Your task to perform on an android device: Search for "beats solo 3" on walmart, select the first entry, add it to the cart, then select checkout. Image 0: 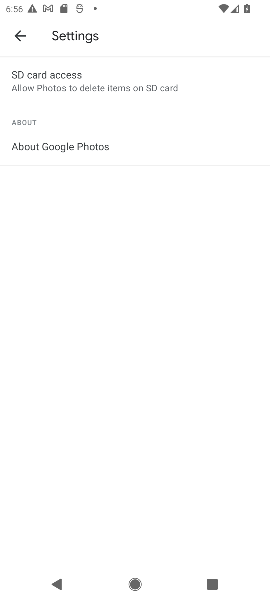
Step 0: press home button
Your task to perform on an android device: Search for "beats solo 3" on walmart, select the first entry, add it to the cart, then select checkout. Image 1: 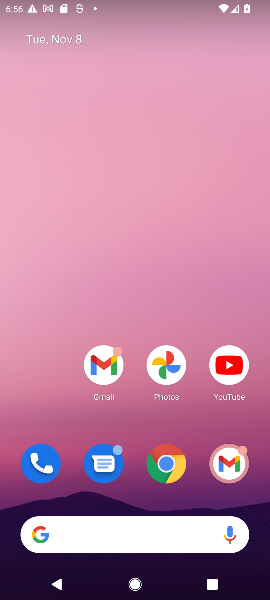
Step 1: click (153, 467)
Your task to perform on an android device: Search for "beats solo 3" on walmart, select the first entry, add it to the cart, then select checkout. Image 2: 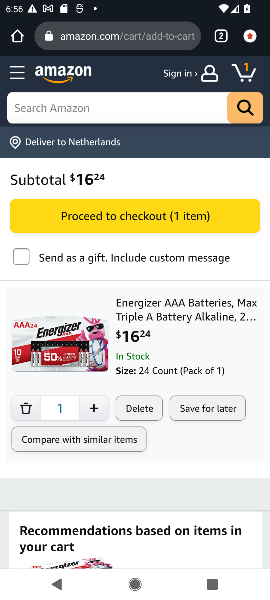
Step 2: click (100, 32)
Your task to perform on an android device: Search for "beats solo 3" on walmart, select the first entry, add it to the cart, then select checkout. Image 3: 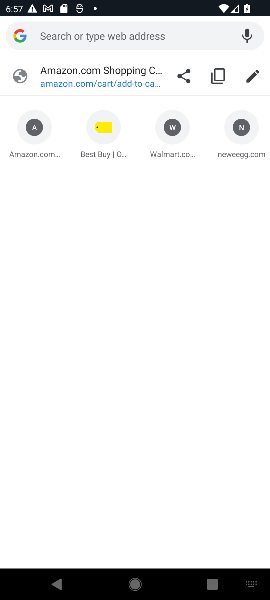
Step 3: click (173, 137)
Your task to perform on an android device: Search for "beats solo 3" on walmart, select the first entry, add it to the cart, then select checkout. Image 4: 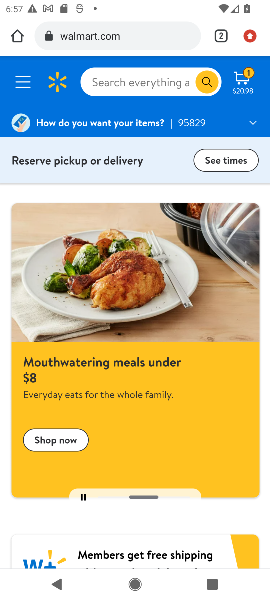
Step 4: click (117, 84)
Your task to perform on an android device: Search for "beats solo 3" on walmart, select the first entry, add it to the cart, then select checkout. Image 5: 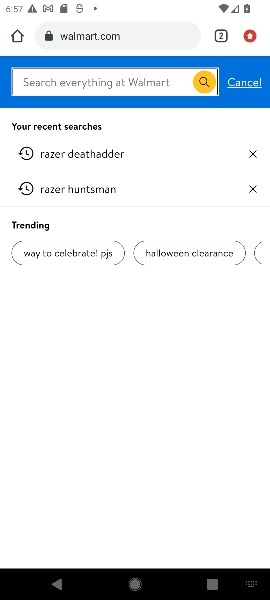
Step 5: type "beats solo 3"
Your task to perform on an android device: Search for "beats solo 3" on walmart, select the first entry, add it to the cart, then select checkout. Image 6: 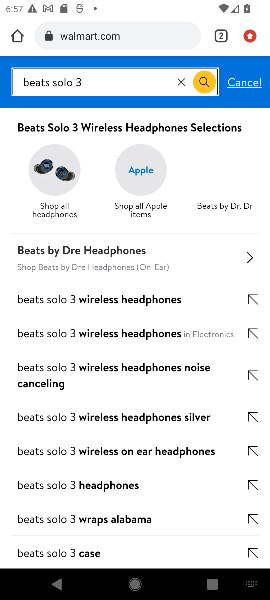
Step 6: click (212, 77)
Your task to perform on an android device: Search for "beats solo 3" on walmart, select the first entry, add it to the cart, then select checkout. Image 7: 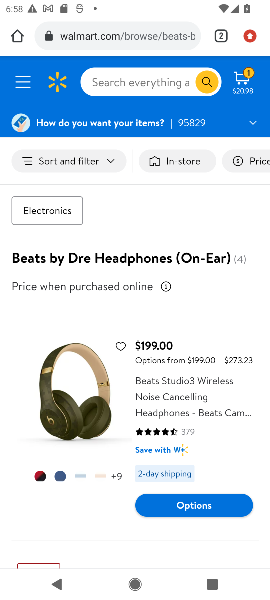
Step 7: click (123, 73)
Your task to perform on an android device: Search for "beats solo 3" on walmart, select the first entry, add it to the cart, then select checkout. Image 8: 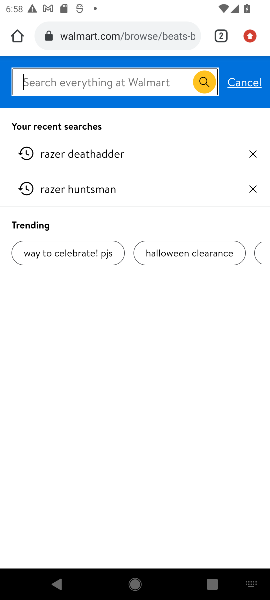
Step 8: type "beats solo 3"
Your task to perform on an android device: Search for "beats solo 3" on walmart, select the first entry, add it to the cart, then select checkout. Image 9: 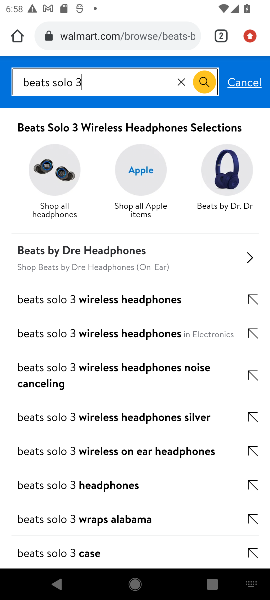
Step 9: click (203, 80)
Your task to perform on an android device: Search for "beats solo 3" on walmart, select the first entry, add it to the cart, then select checkout. Image 10: 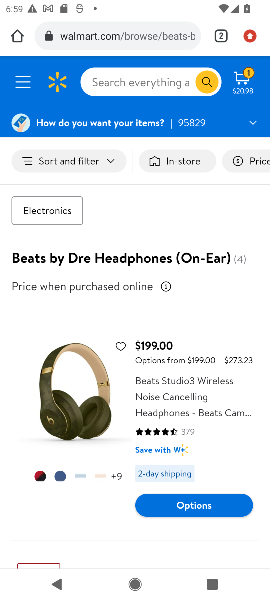
Step 10: drag from (208, 382) to (170, 119)
Your task to perform on an android device: Search for "beats solo 3" on walmart, select the first entry, add it to the cart, then select checkout. Image 11: 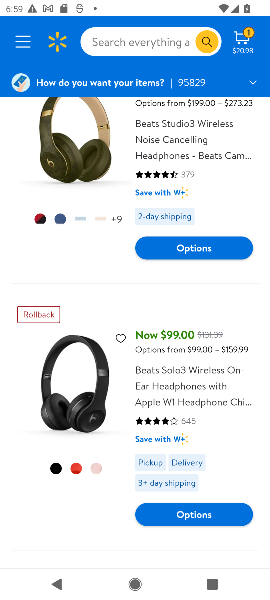
Step 11: click (184, 511)
Your task to perform on an android device: Search for "beats solo 3" on walmart, select the first entry, add it to the cart, then select checkout. Image 12: 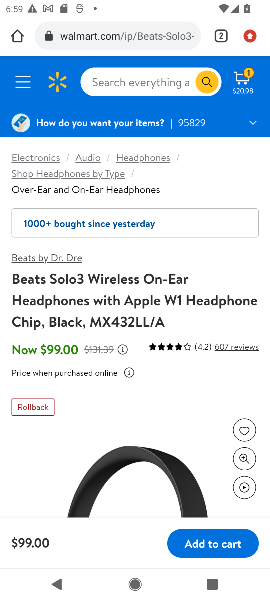
Step 12: click (216, 540)
Your task to perform on an android device: Search for "beats solo 3" on walmart, select the first entry, add it to the cart, then select checkout. Image 13: 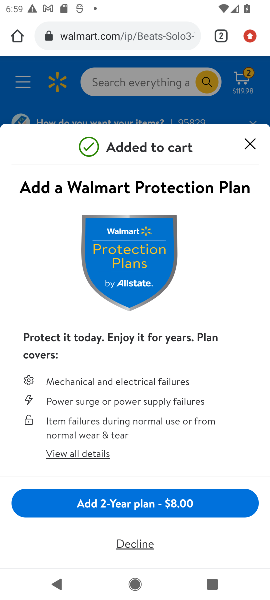
Step 13: task complete